Your task to perform on an android device: Search for the new Steph Curry shoes on Nike.com Image 0: 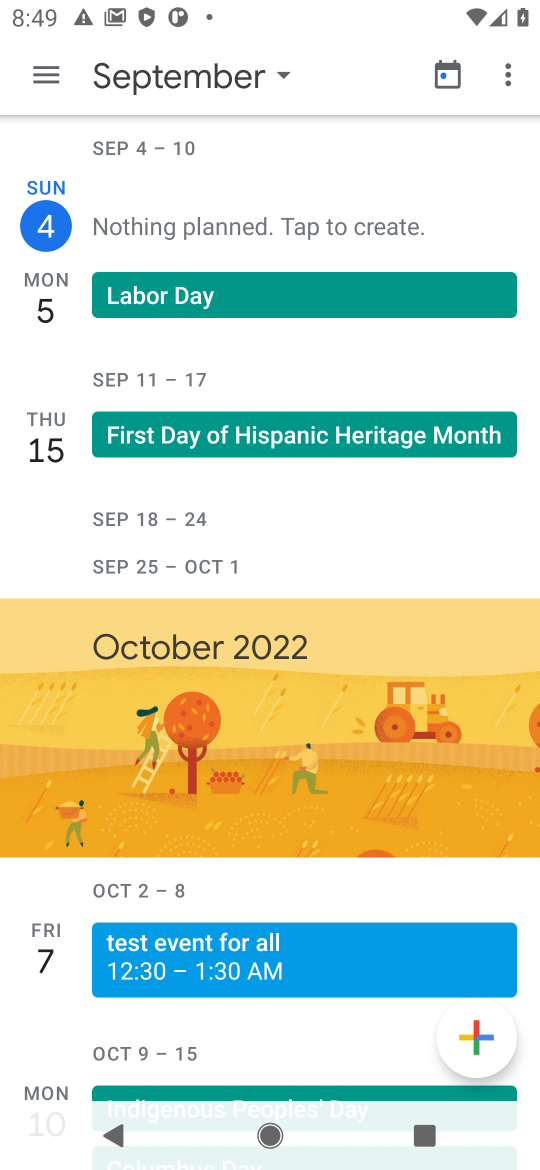
Step 0: press home button
Your task to perform on an android device: Search for the new Steph Curry shoes on Nike.com Image 1: 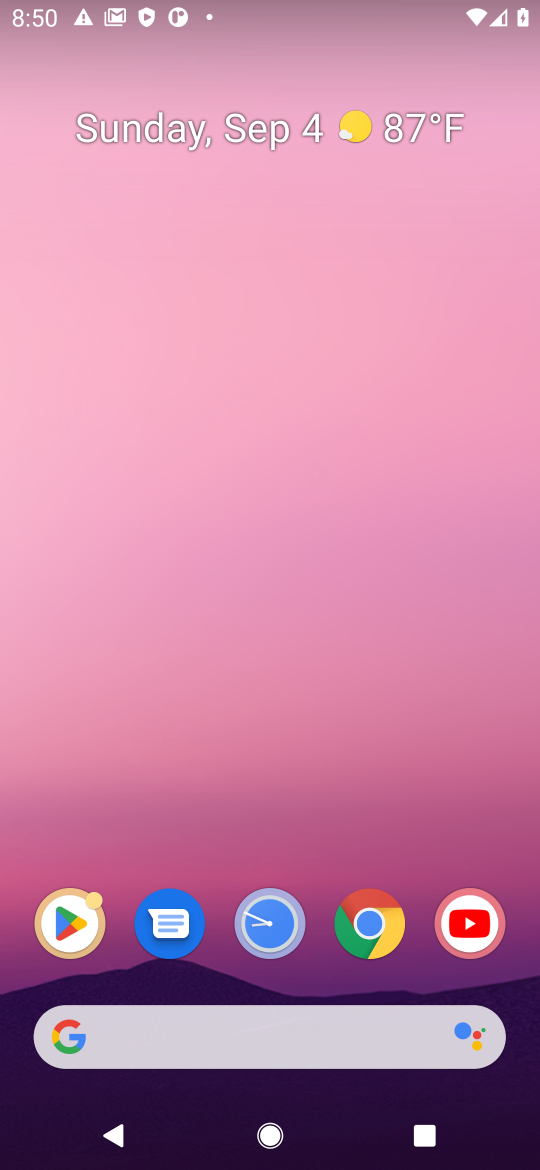
Step 1: click (394, 1039)
Your task to perform on an android device: Search for the new Steph Curry shoes on Nike.com Image 2: 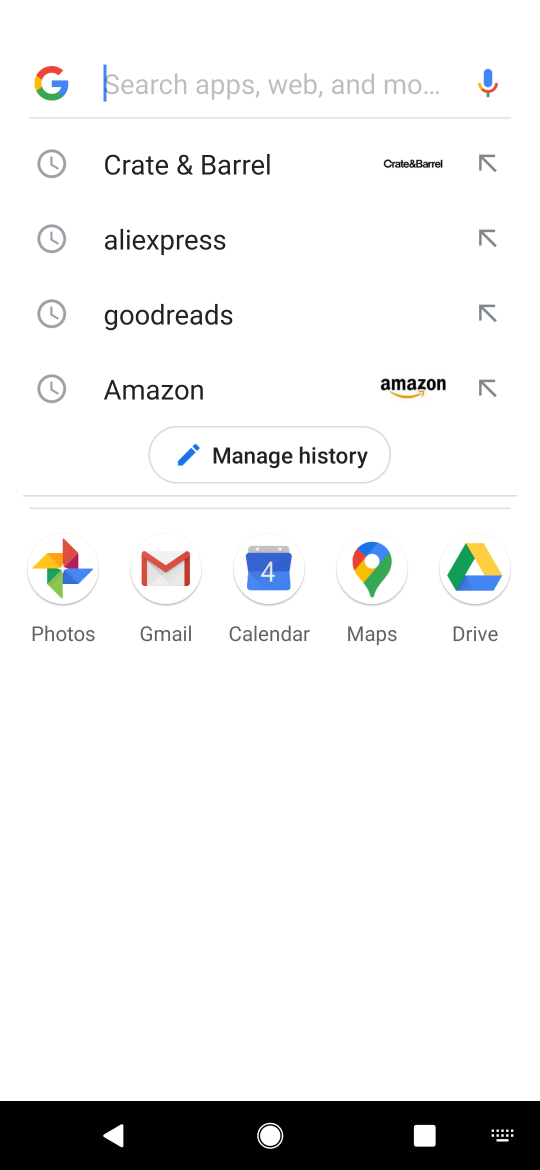
Step 2: press enter
Your task to perform on an android device: Search for the new Steph Curry shoes on Nike.com Image 3: 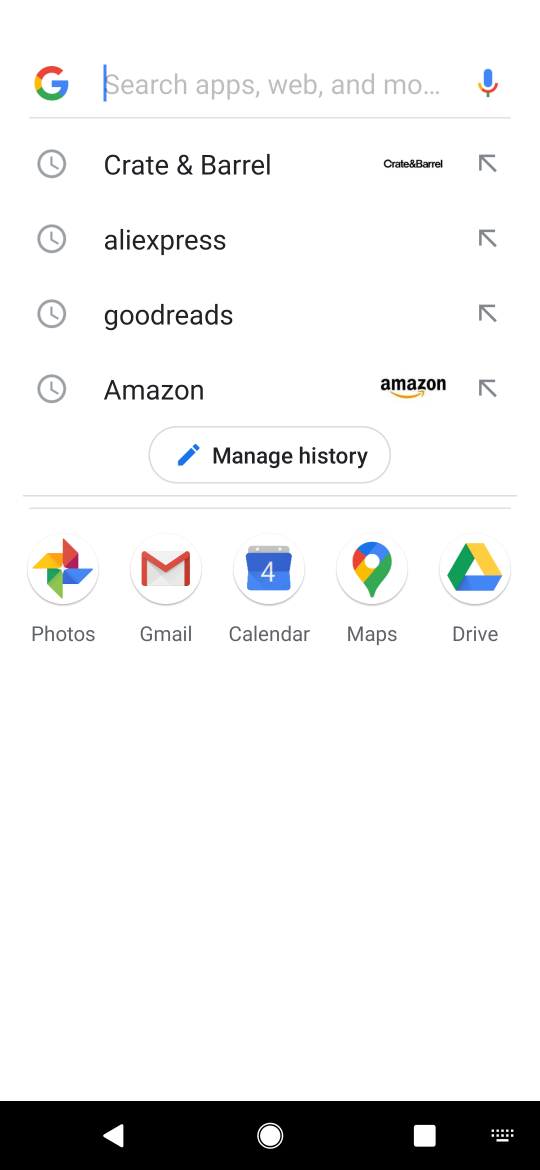
Step 3: type "nike.com"
Your task to perform on an android device: Search for the new Steph Curry shoes on Nike.com Image 4: 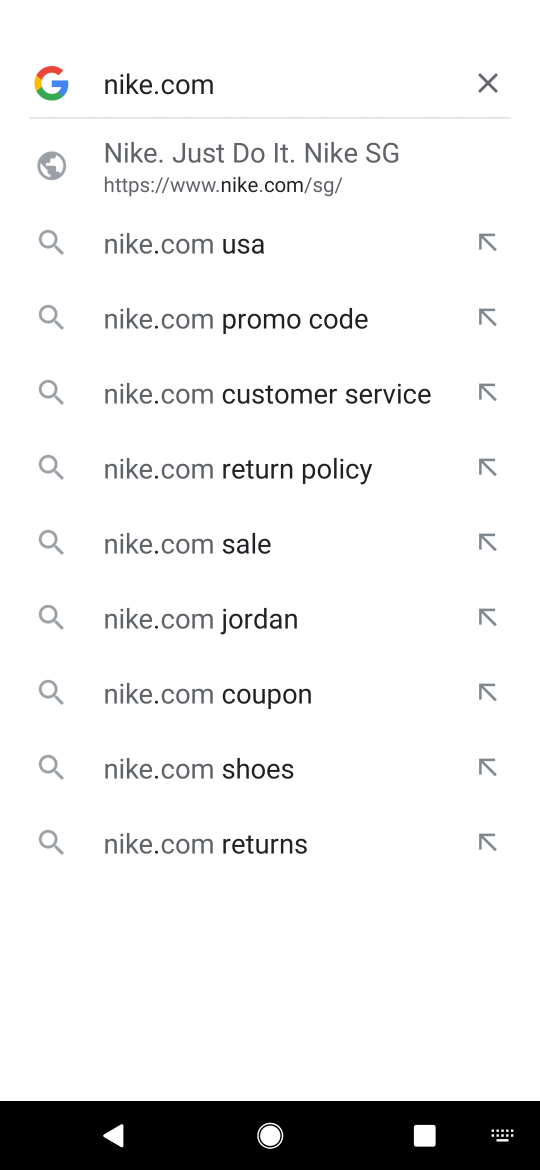
Step 4: click (259, 176)
Your task to perform on an android device: Search for the new Steph Curry shoes on Nike.com Image 5: 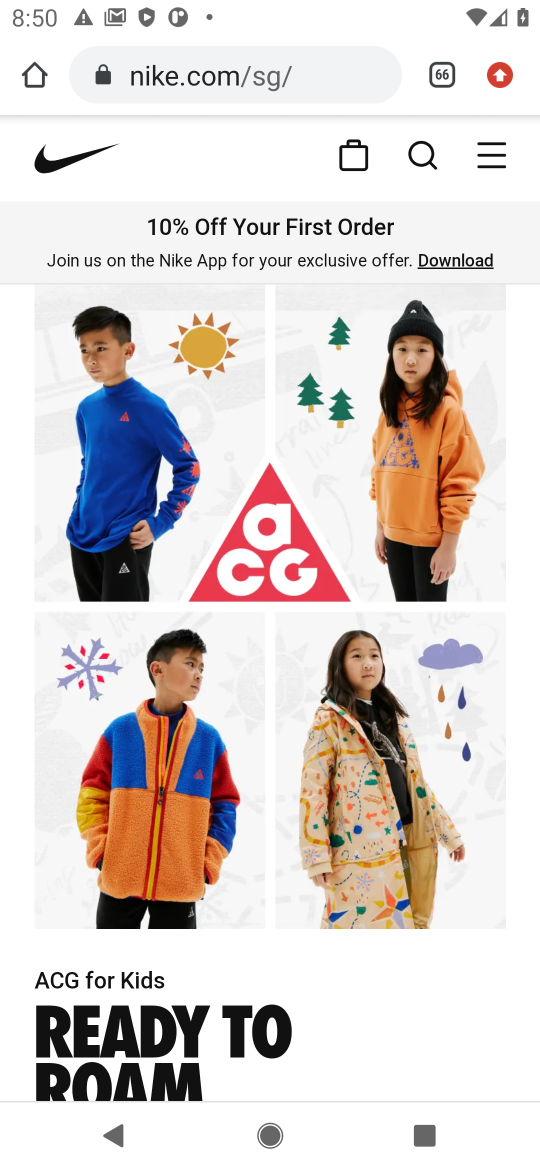
Step 5: click (419, 142)
Your task to perform on an android device: Search for the new Steph Curry shoes on Nike.com Image 6: 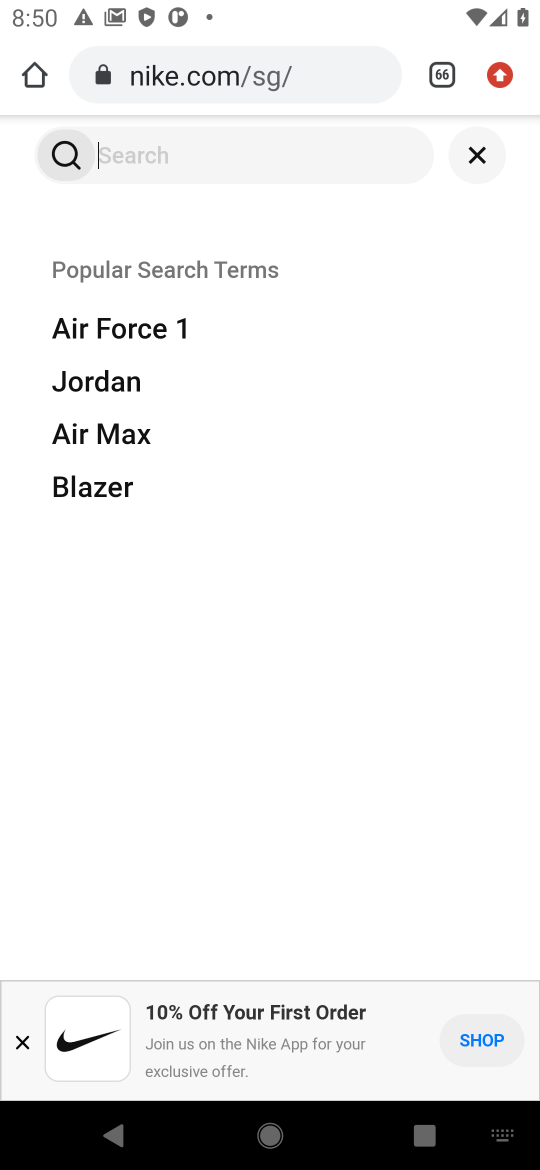
Step 6: press enter
Your task to perform on an android device: Search for the new Steph Curry shoes on Nike.com Image 7: 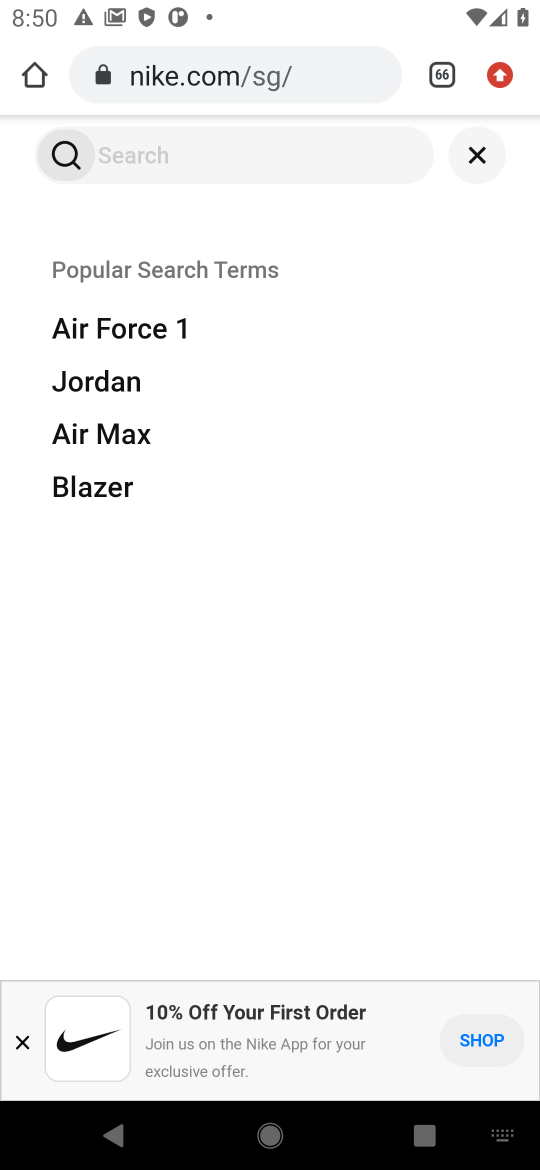
Step 7: type "steph curry shoes"
Your task to perform on an android device: Search for the new Steph Curry shoes on Nike.com Image 8: 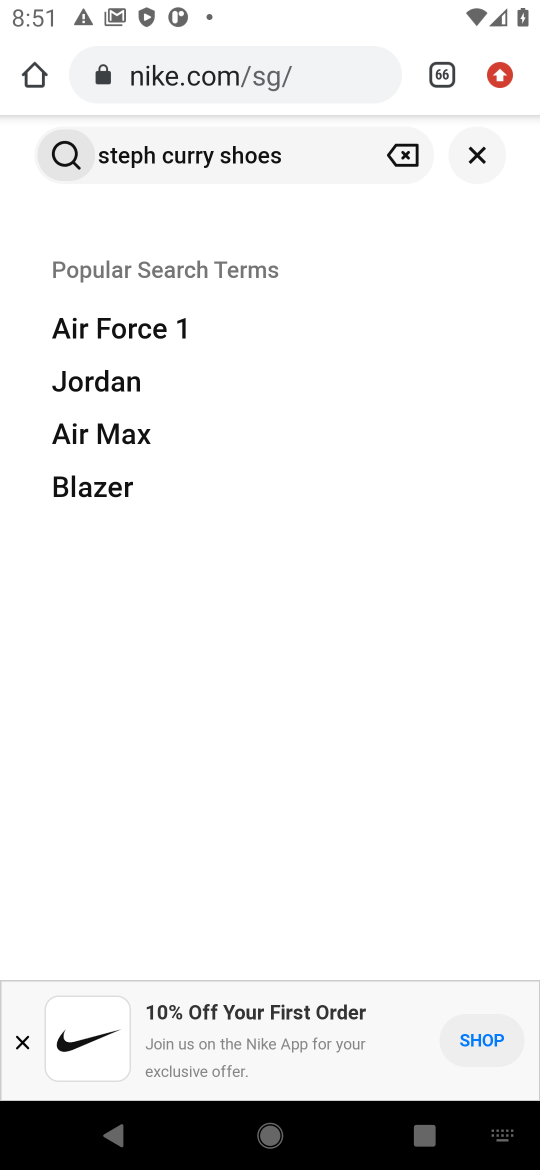
Step 8: click (64, 147)
Your task to perform on an android device: Search for the new Steph Curry shoes on Nike.com Image 9: 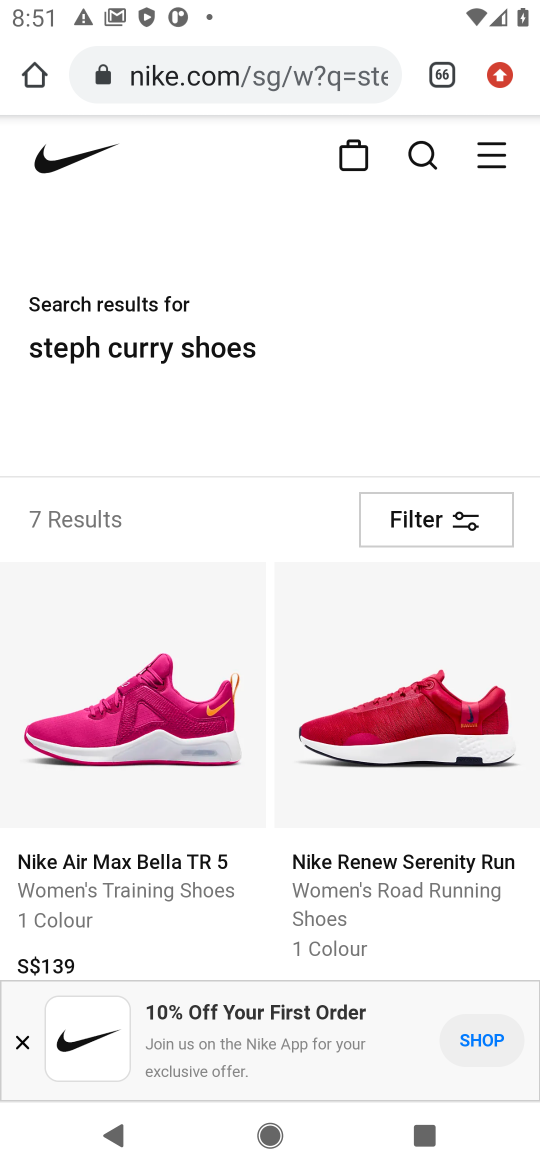
Step 9: task complete